Your task to perform on an android device: visit the assistant section in the google photos Image 0: 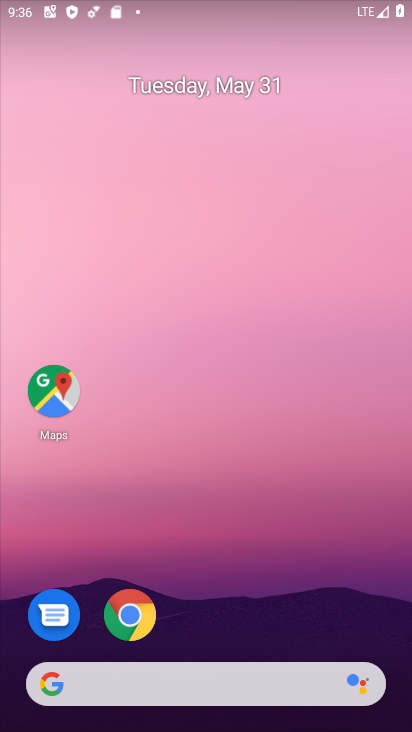
Step 0: drag from (324, 400) to (395, 106)
Your task to perform on an android device: visit the assistant section in the google photos Image 1: 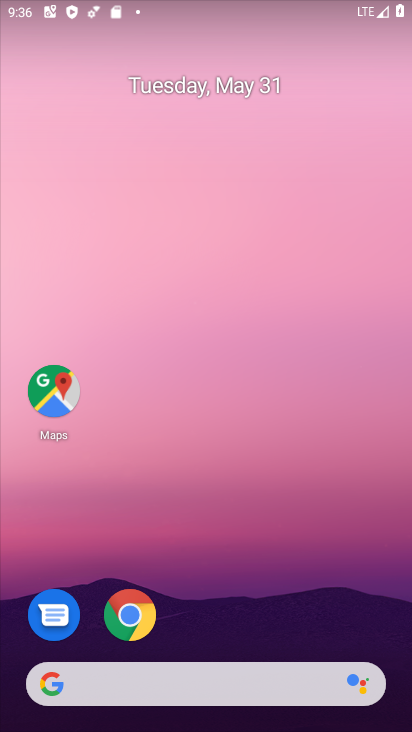
Step 1: drag from (286, 493) to (348, 109)
Your task to perform on an android device: visit the assistant section in the google photos Image 2: 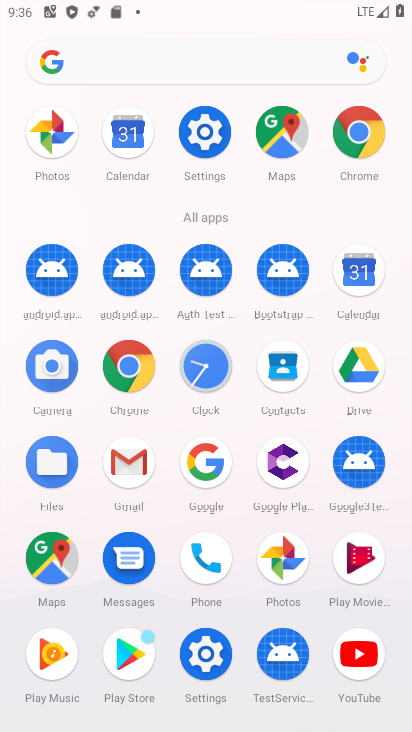
Step 2: click (289, 551)
Your task to perform on an android device: visit the assistant section in the google photos Image 3: 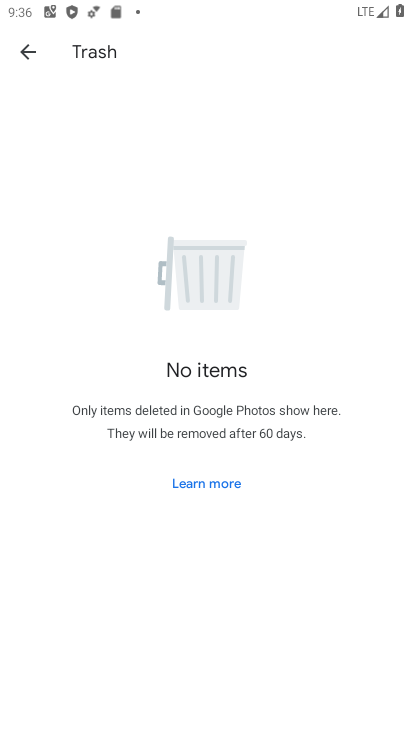
Step 3: click (39, 55)
Your task to perform on an android device: visit the assistant section in the google photos Image 4: 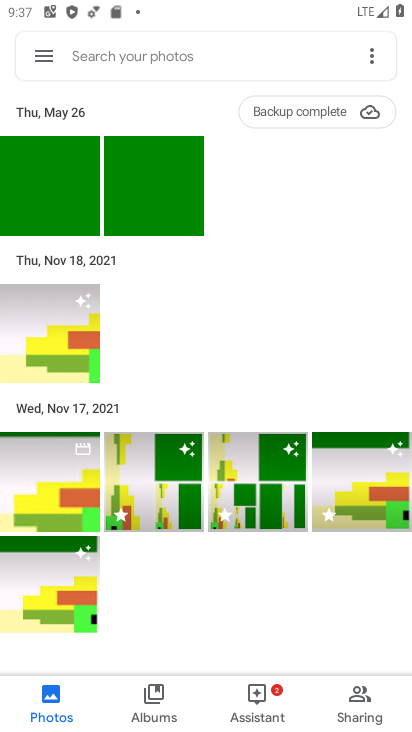
Step 4: click (264, 714)
Your task to perform on an android device: visit the assistant section in the google photos Image 5: 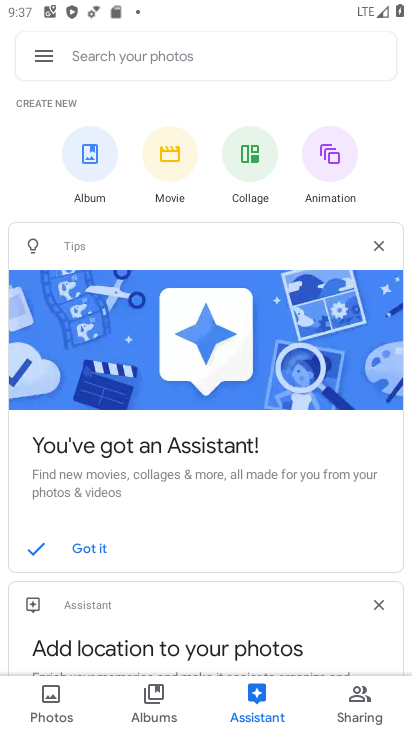
Step 5: task complete